Your task to perform on an android device: turn notification dots on Image 0: 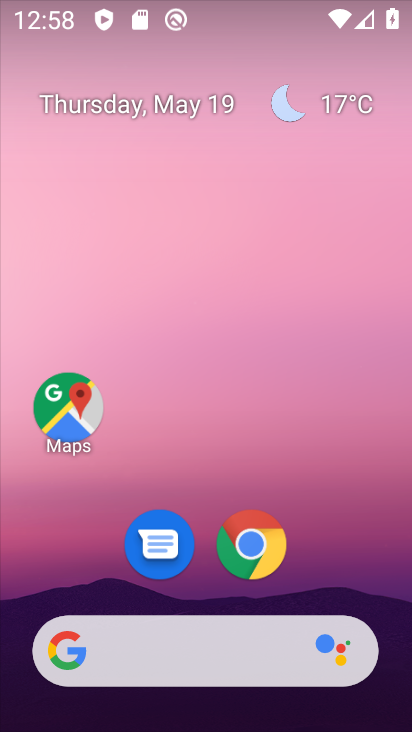
Step 0: drag from (202, 719) to (203, 137)
Your task to perform on an android device: turn notification dots on Image 1: 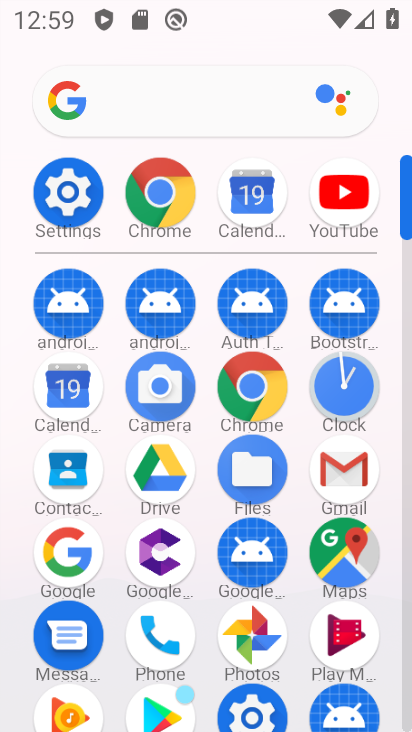
Step 1: click (61, 205)
Your task to perform on an android device: turn notification dots on Image 2: 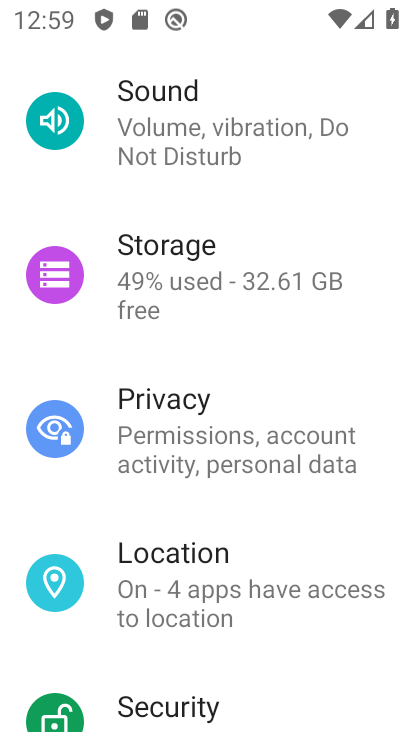
Step 2: drag from (187, 132) to (195, 595)
Your task to perform on an android device: turn notification dots on Image 3: 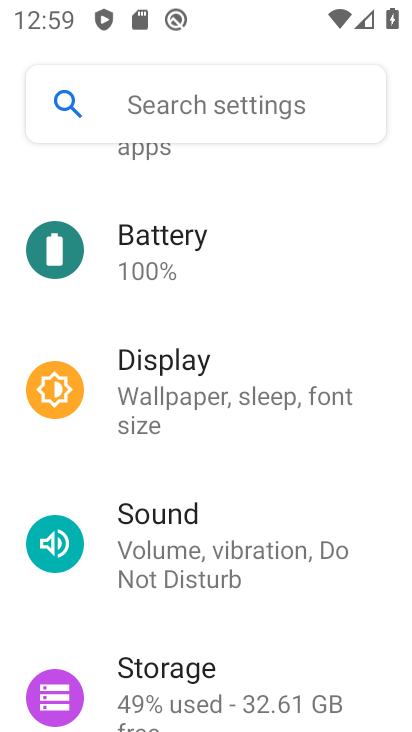
Step 3: drag from (229, 228) to (230, 696)
Your task to perform on an android device: turn notification dots on Image 4: 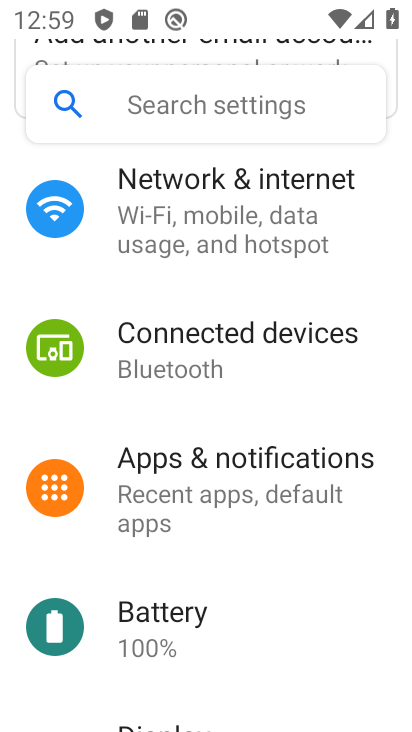
Step 4: click (195, 481)
Your task to perform on an android device: turn notification dots on Image 5: 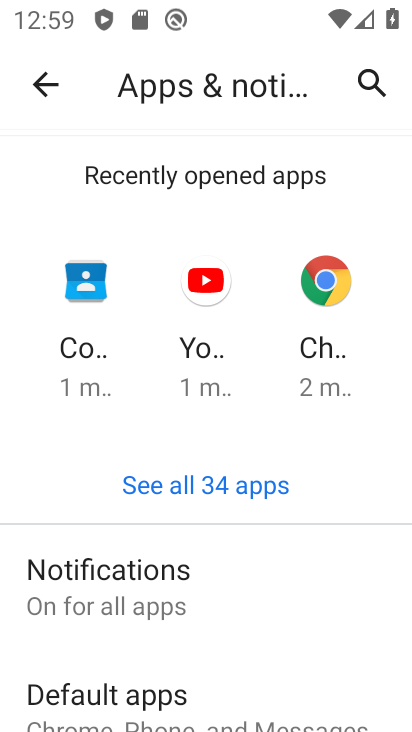
Step 5: drag from (169, 635) to (187, 510)
Your task to perform on an android device: turn notification dots on Image 6: 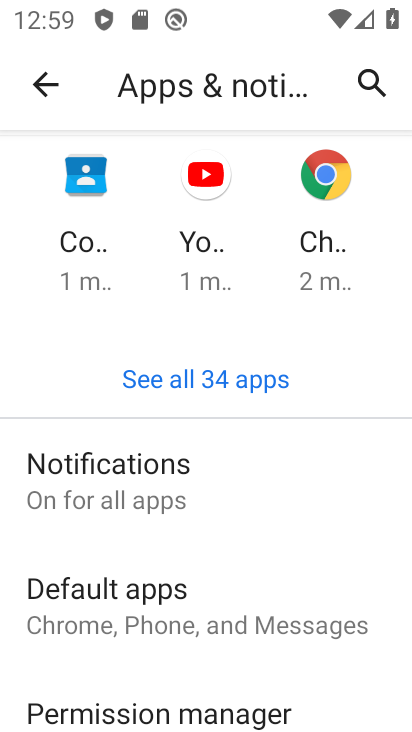
Step 6: click (130, 491)
Your task to perform on an android device: turn notification dots on Image 7: 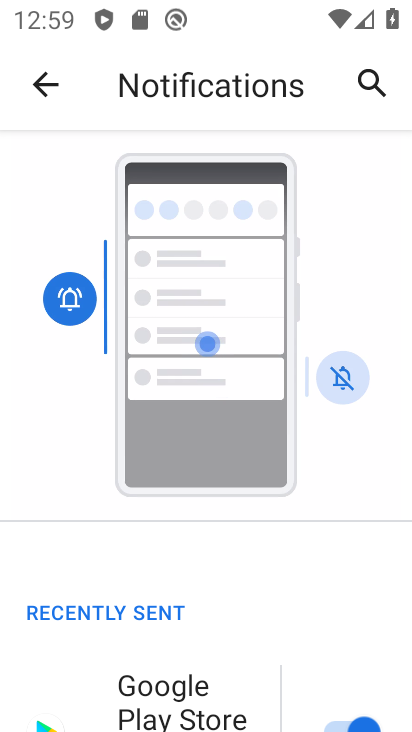
Step 7: drag from (177, 673) to (179, 429)
Your task to perform on an android device: turn notification dots on Image 8: 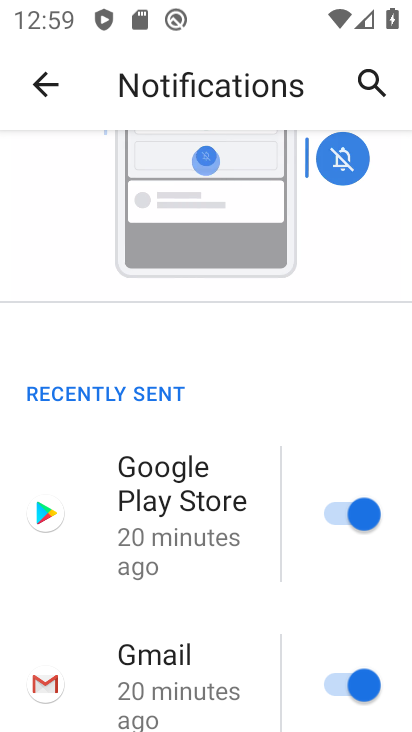
Step 8: drag from (244, 678) to (246, 387)
Your task to perform on an android device: turn notification dots on Image 9: 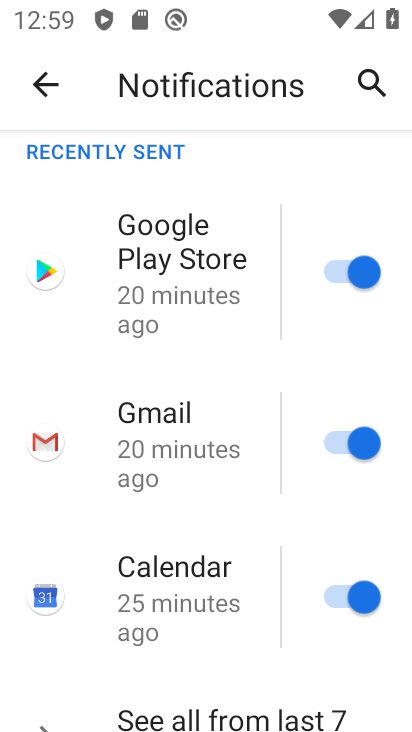
Step 9: drag from (233, 665) to (237, 440)
Your task to perform on an android device: turn notification dots on Image 10: 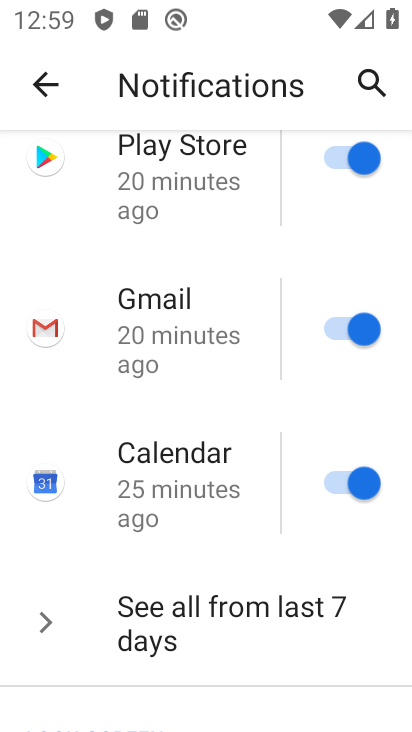
Step 10: drag from (234, 650) to (226, 276)
Your task to perform on an android device: turn notification dots on Image 11: 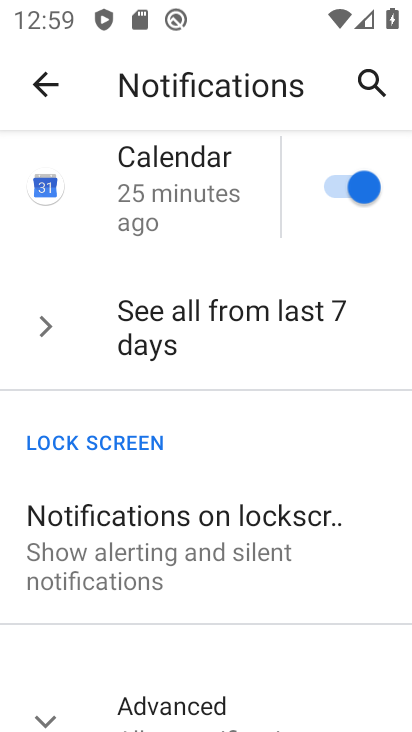
Step 11: drag from (208, 635) to (215, 348)
Your task to perform on an android device: turn notification dots on Image 12: 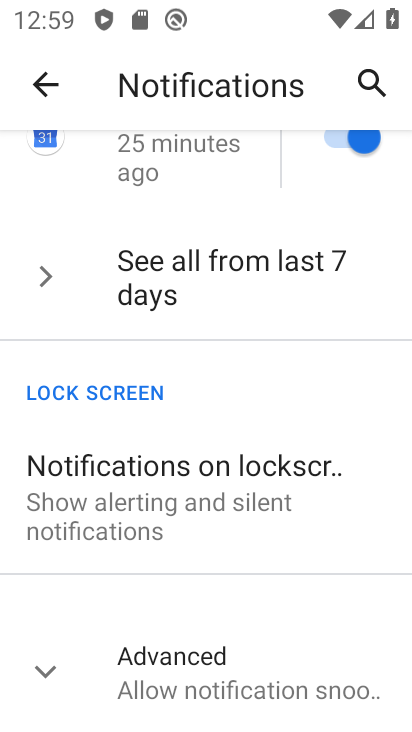
Step 12: click (215, 662)
Your task to perform on an android device: turn notification dots on Image 13: 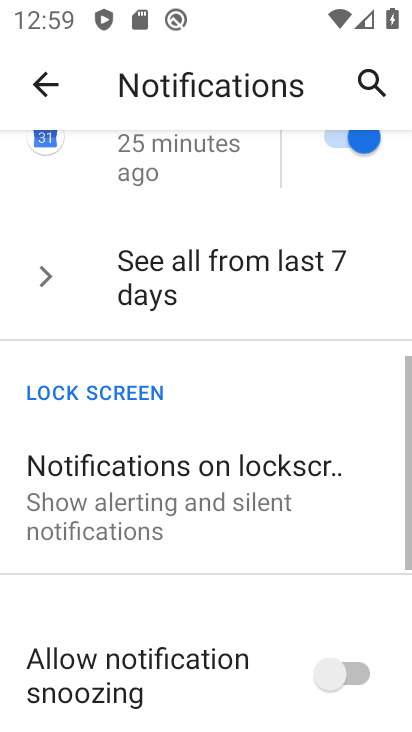
Step 13: task complete